Your task to perform on an android device: turn off sleep mode Image 0: 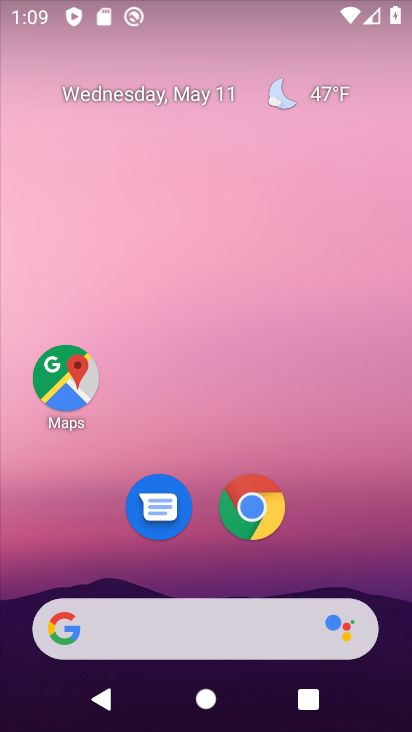
Step 0: click (255, 81)
Your task to perform on an android device: turn off sleep mode Image 1: 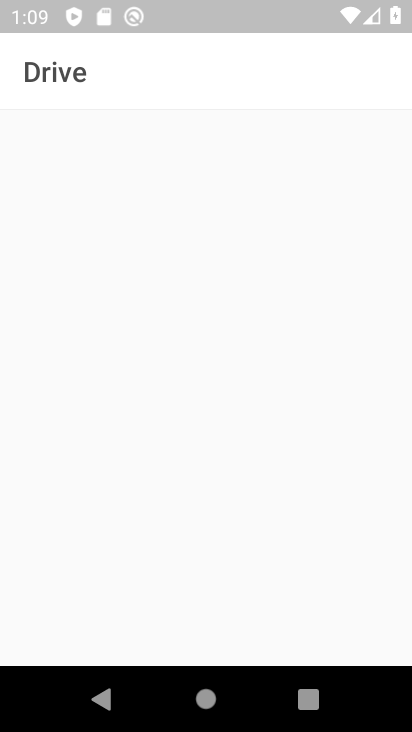
Step 1: drag from (336, 553) to (280, 116)
Your task to perform on an android device: turn off sleep mode Image 2: 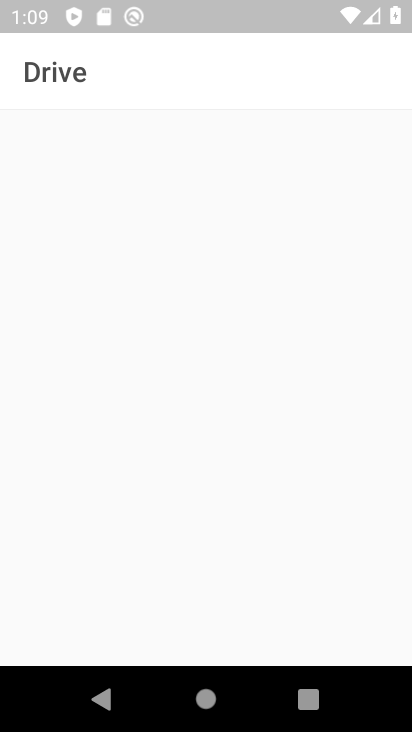
Step 2: press home button
Your task to perform on an android device: turn off sleep mode Image 3: 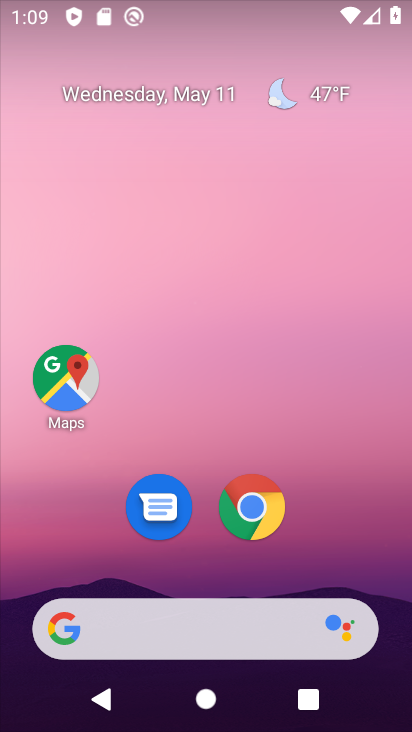
Step 3: drag from (279, 564) to (193, 85)
Your task to perform on an android device: turn off sleep mode Image 4: 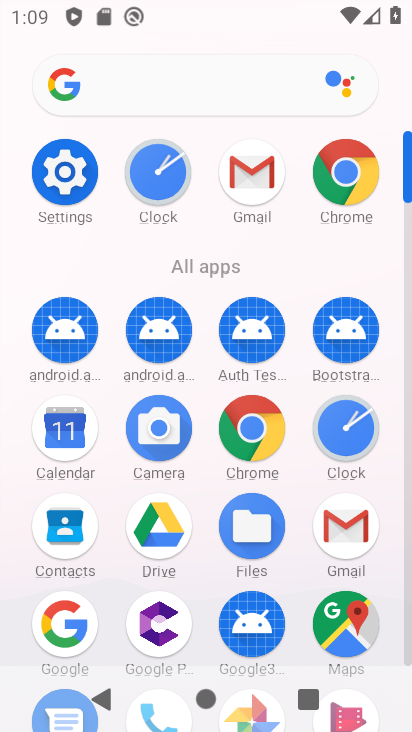
Step 4: click (70, 167)
Your task to perform on an android device: turn off sleep mode Image 5: 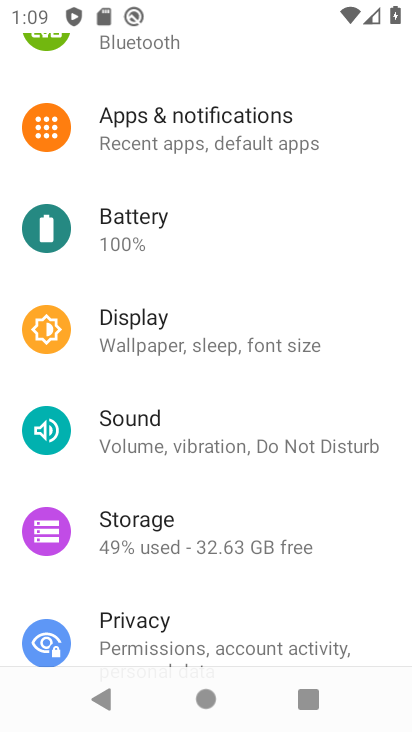
Step 5: click (134, 213)
Your task to perform on an android device: turn off sleep mode Image 6: 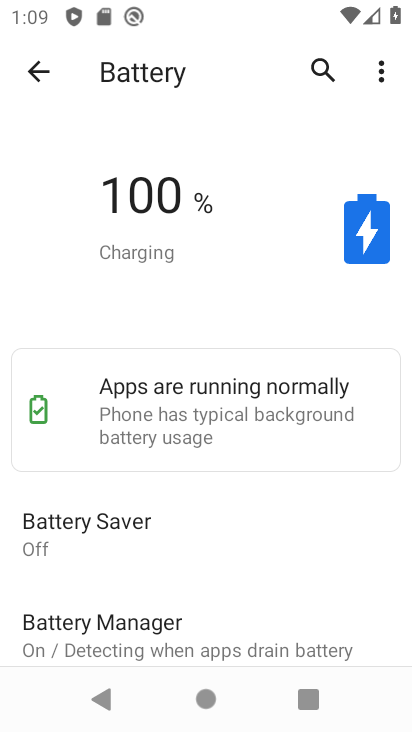
Step 6: task complete